Your task to perform on an android device: turn on notifications settings in the gmail app Image 0: 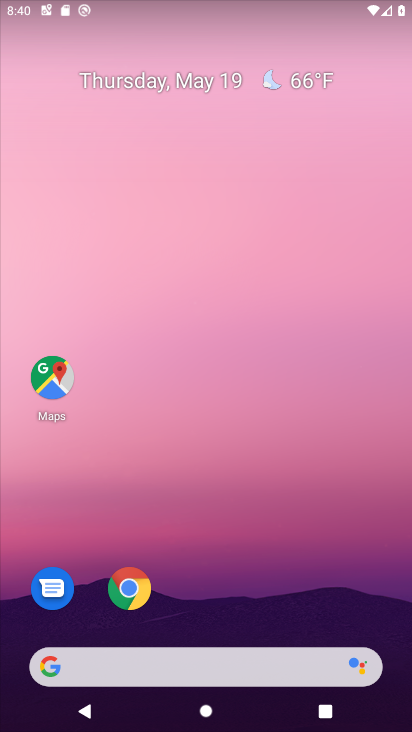
Step 0: drag from (378, 271) to (376, 221)
Your task to perform on an android device: turn on notifications settings in the gmail app Image 1: 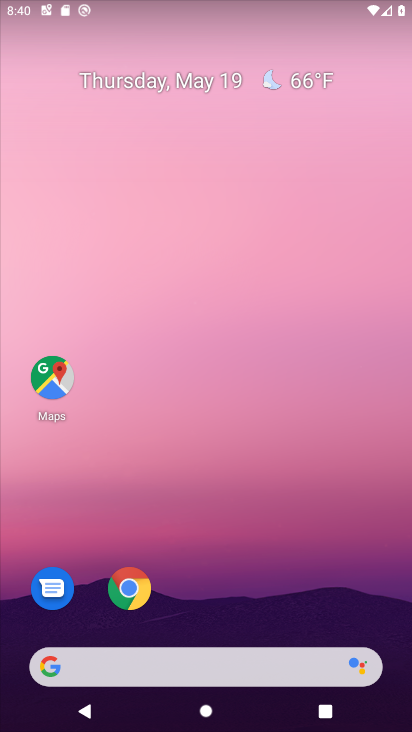
Step 1: drag from (382, 618) to (363, 187)
Your task to perform on an android device: turn on notifications settings in the gmail app Image 2: 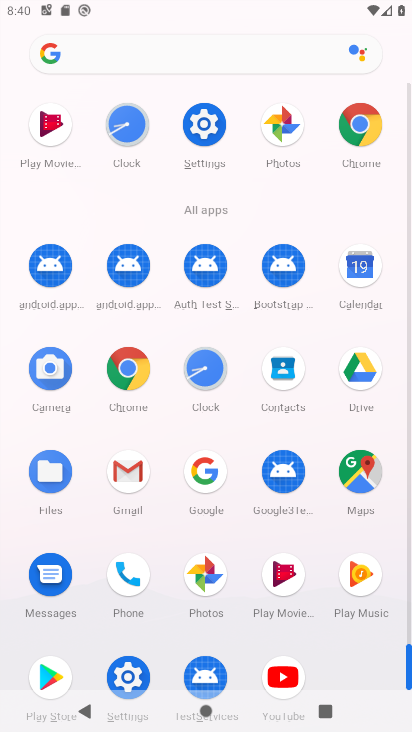
Step 2: click (140, 477)
Your task to perform on an android device: turn on notifications settings in the gmail app Image 3: 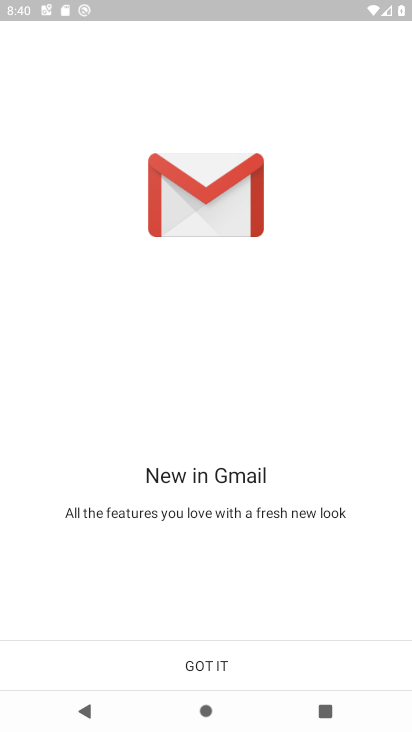
Step 3: click (227, 665)
Your task to perform on an android device: turn on notifications settings in the gmail app Image 4: 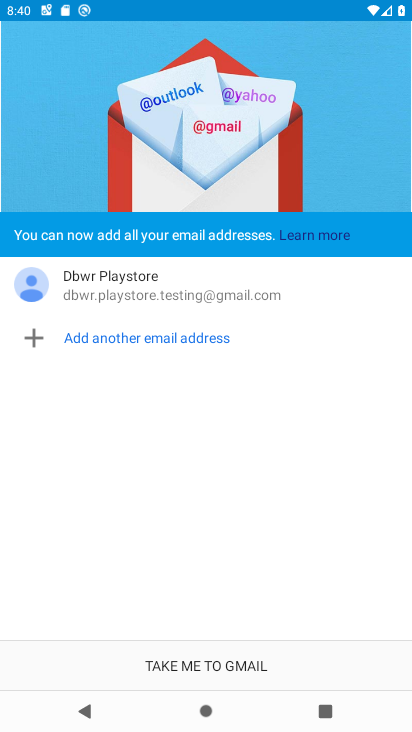
Step 4: click (268, 658)
Your task to perform on an android device: turn on notifications settings in the gmail app Image 5: 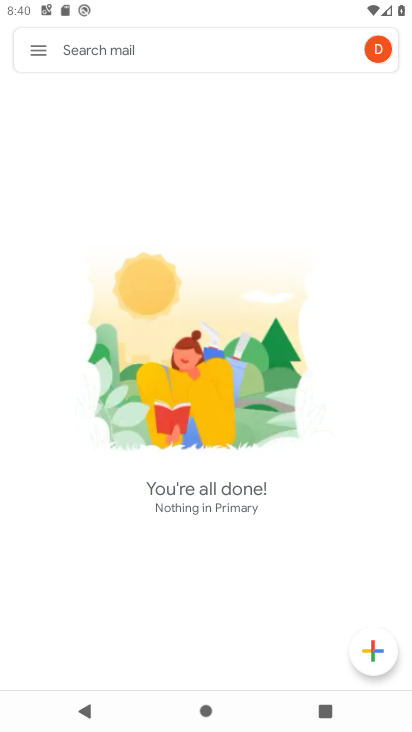
Step 5: click (39, 48)
Your task to perform on an android device: turn on notifications settings in the gmail app Image 6: 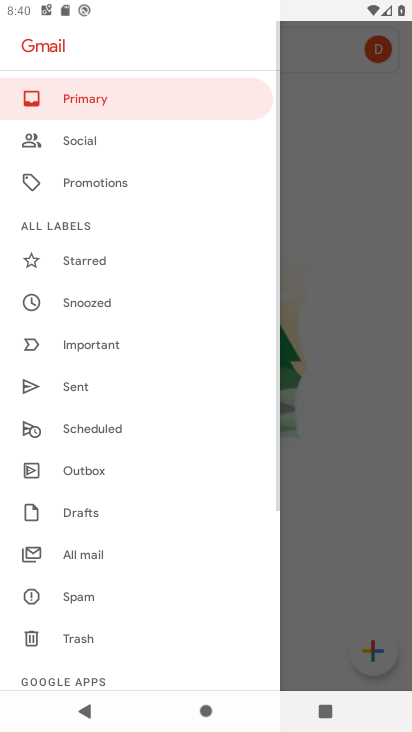
Step 6: drag from (174, 471) to (175, 387)
Your task to perform on an android device: turn on notifications settings in the gmail app Image 7: 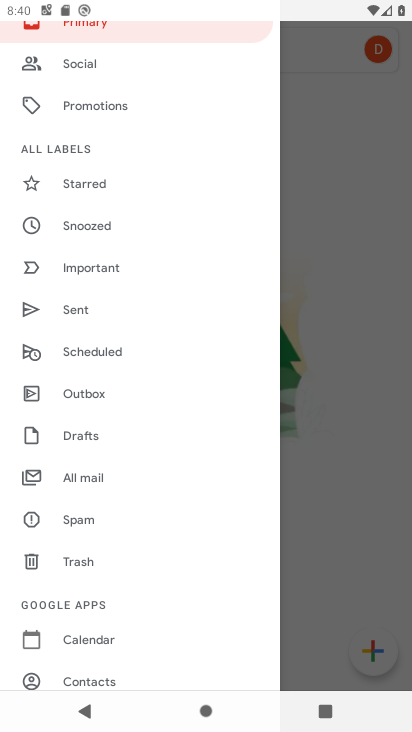
Step 7: drag from (173, 513) to (186, 421)
Your task to perform on an android device: turn on notifications settings in the gmail app Image 8: 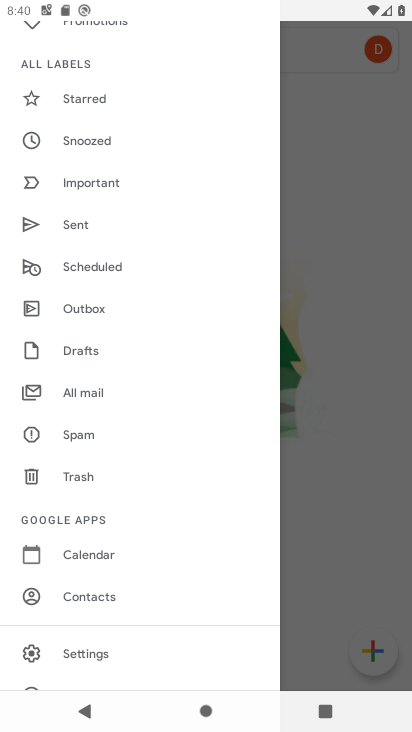
Step 8: drag from (190, 540) to (189, 430)
Your task to perform on an android device: turn on notifications settings in the gmail app Image 9: 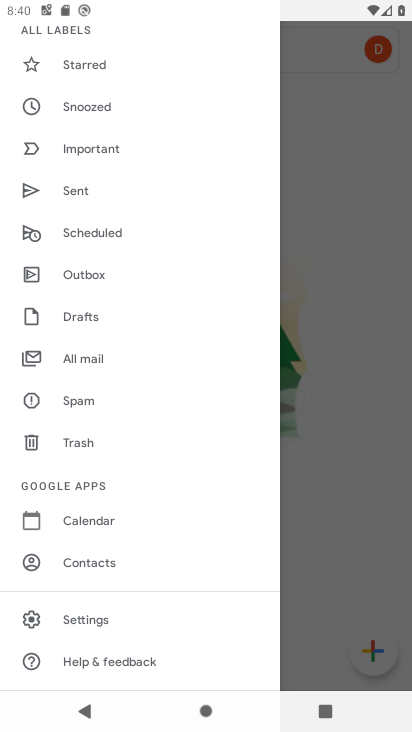
Step 9: click (130, 613)
Your task to perform on an android device: turn on notifications settings in the gmail app Image 10: 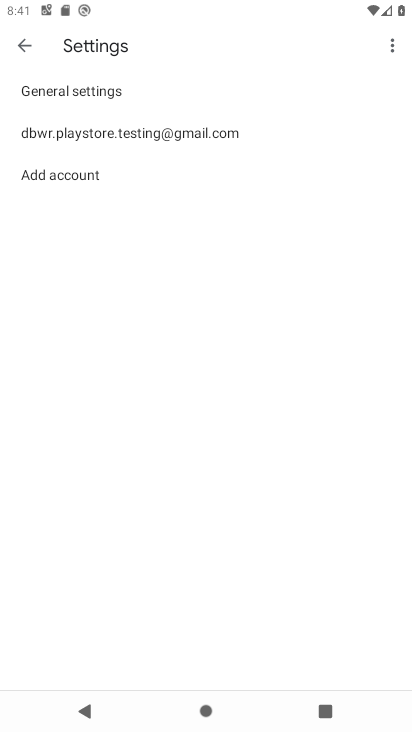
Step 10: click (263, 139)
Your task to perform on an android device: turn on notifications settings in the gmail app Image 11: 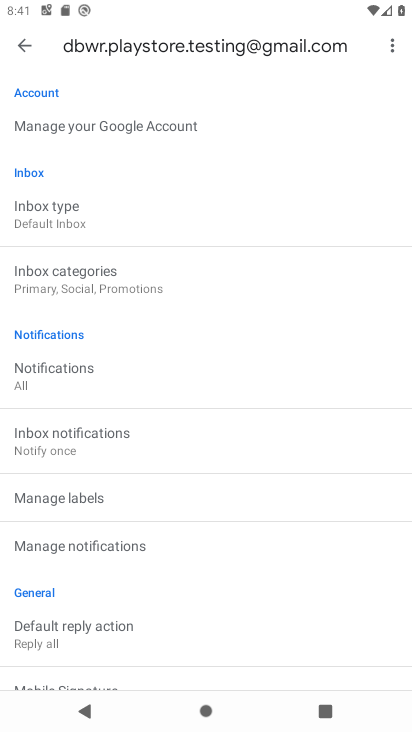
Step 11: drag from (278, 562) to (283, 446)
Your task to perform on an android device: turn on notifications settings in the gmail app Image 12: 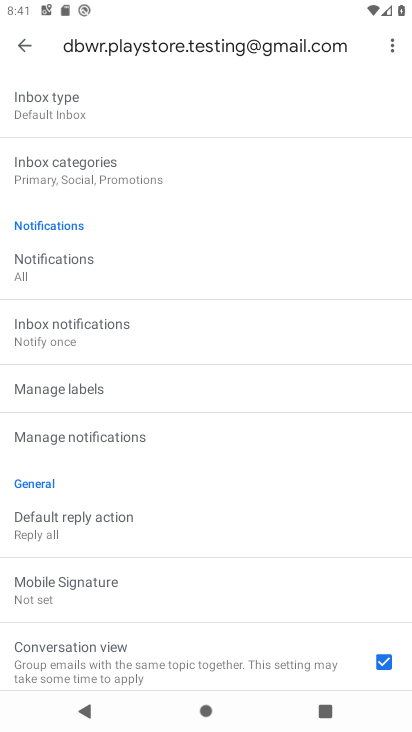
Step 12: drag from (285, 591) to (292, 493)
Your task to perform on an android device: turn on notifications settings in the gmail app Image 13: 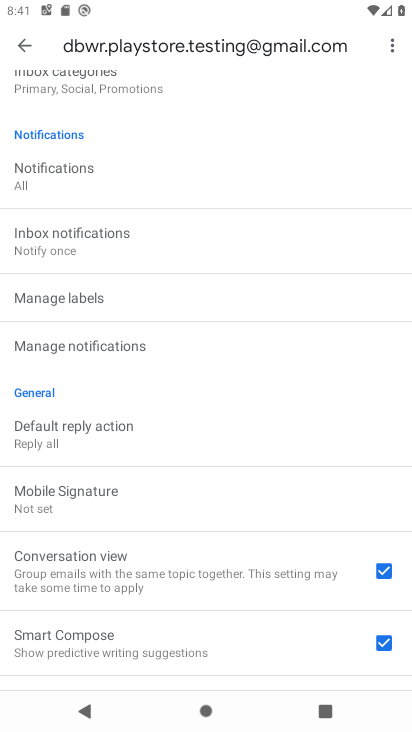
Step 13: drag from (271, 596) to (282, 458)
Your task to perform on an android device: turn on notifications settings in the gmail app Image 14: 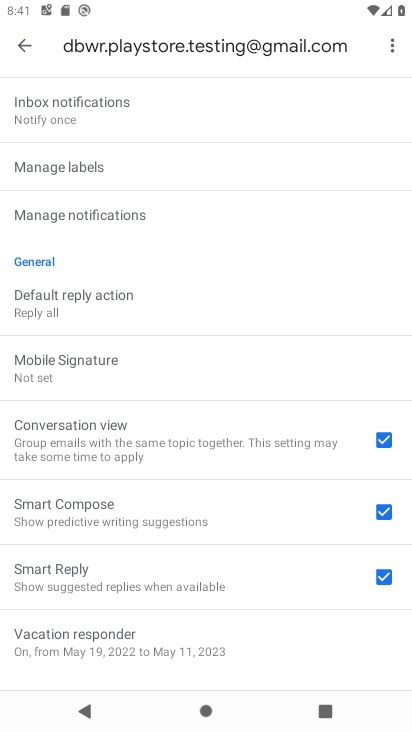
Step 14: drag from (299, 618) to (303, 489)
Your task to perform on an android device: turn on notifications settings in the gmail app Image 15: 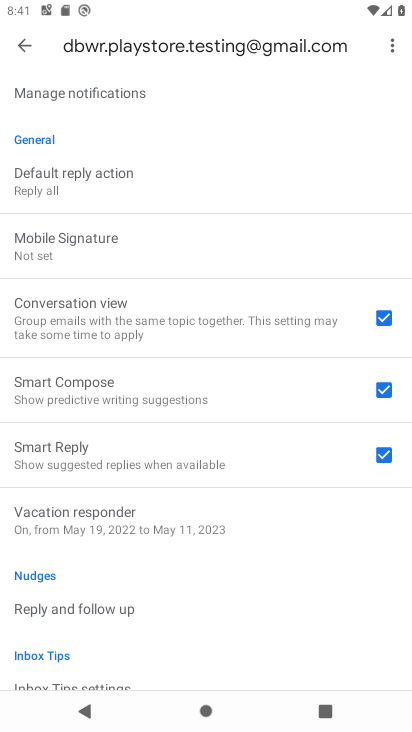
Step 15: drag from (301, 609) to (295, 514)
Your task to perform on an android device: turn on notifications settings in the gmail app Image 16: 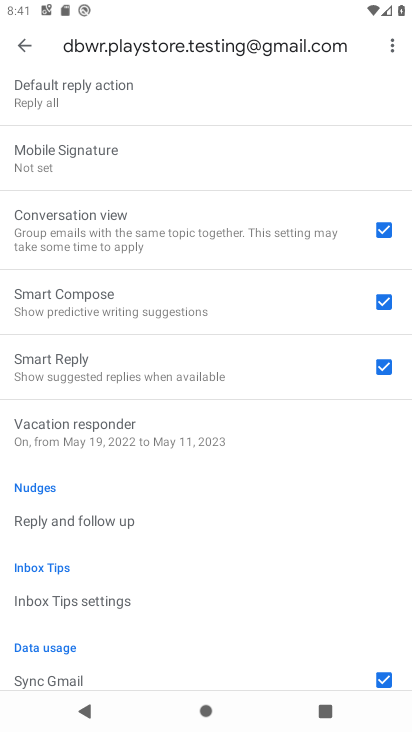
Step 16: drag from (287, 594) to (281, 497)
Your task to perform on an android device: turn on notifications settings in the gmail app Image 17: 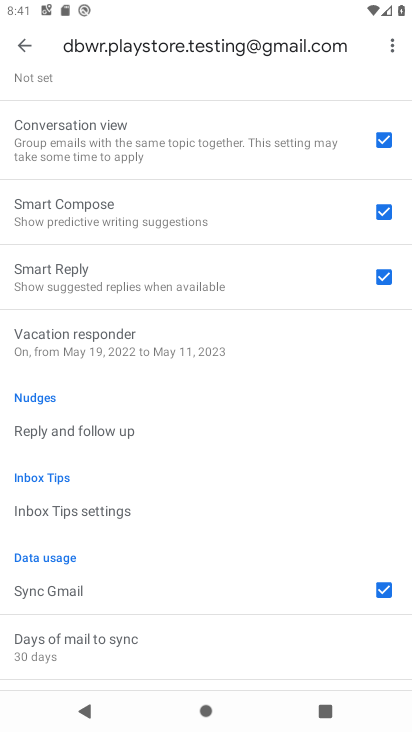
Step 17: drag from (284, 576) to (279, 473)
Your task to perform on an android device: turn on notifications settings in the gmail app Image 18: 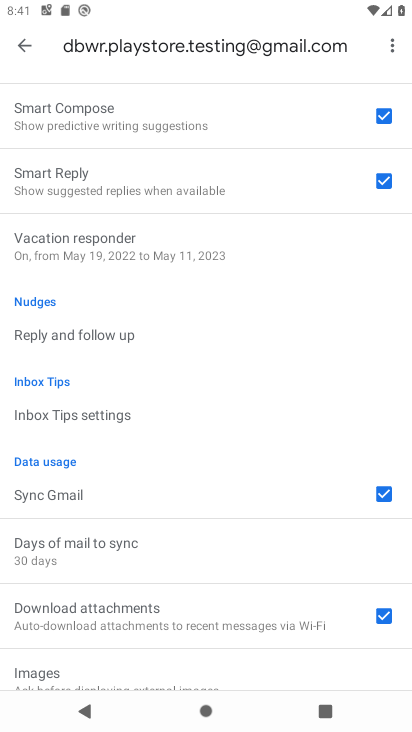
Step 18: drag from (292, 280) to (282, 364)
Your task to perform on an android device: turn on notifications settings in the gmail app Image 19: 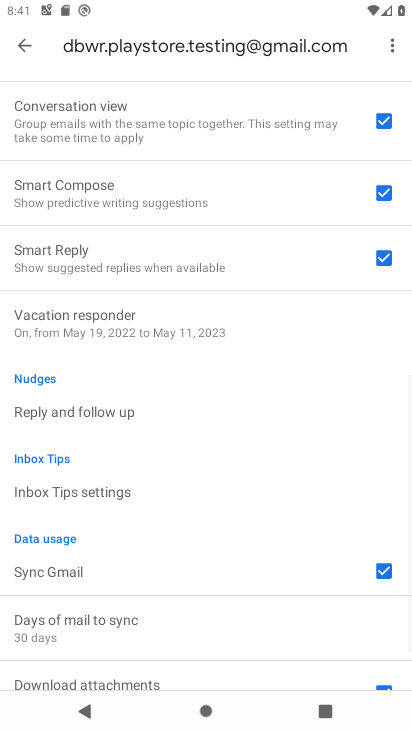
Step 19: drag from (283, 228) to (289, 344)
Your task to perform on an android device: turn on notifications settings in the gmail app Image 20: 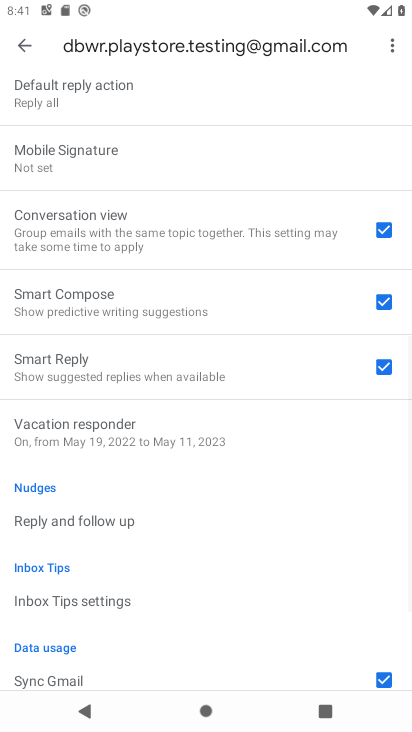
Step 20: drag from (274, 210) to (270, 315)
Your task to perform on an android device: turn on notifications settings in the gmail app Image 21: 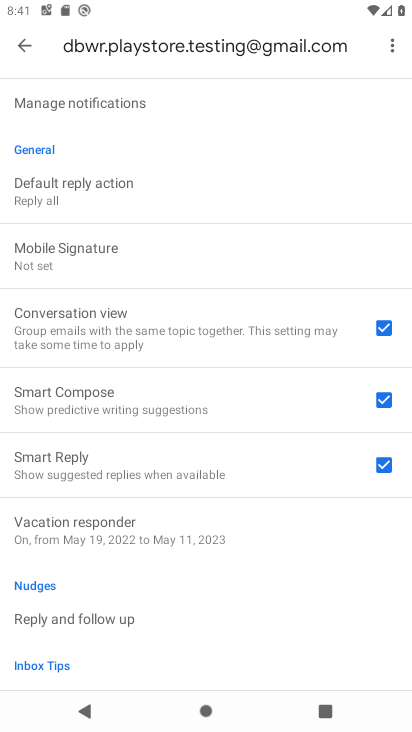
Step 21: drag from (254, 195) to (248, 293)
Your task to perform on an android device: turn on notifications settings in the gmail app Image 22: 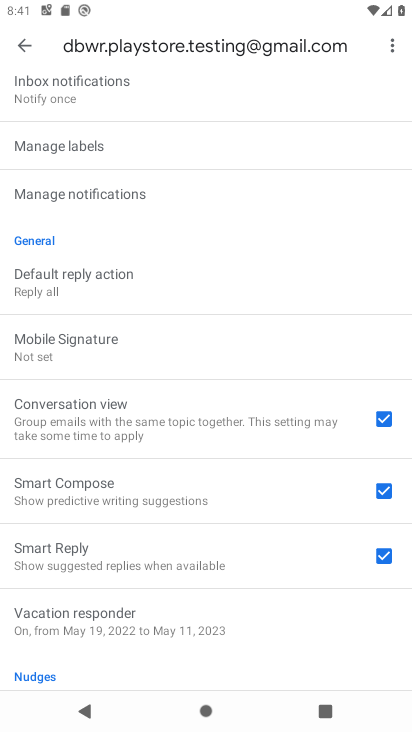
Step 22: drag from (267, 244) to (260, 329)
Your task to perform on an android device: turn on notifications settings in the gmail app Image 23: 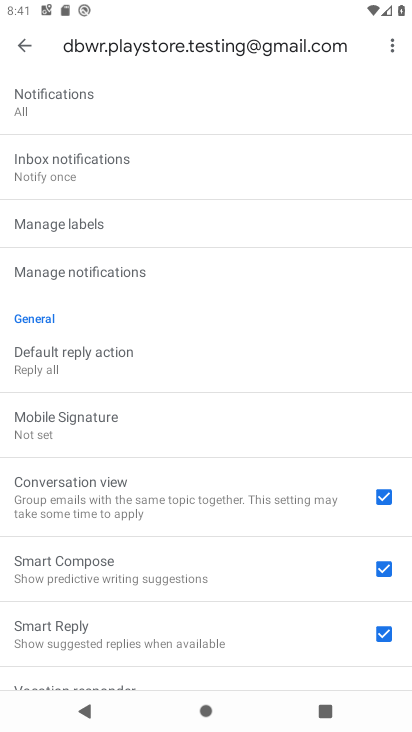
Step 23: click (203, 281)
Your task to perform on an android device: turn on notifications settings in the gmail app Image 24: 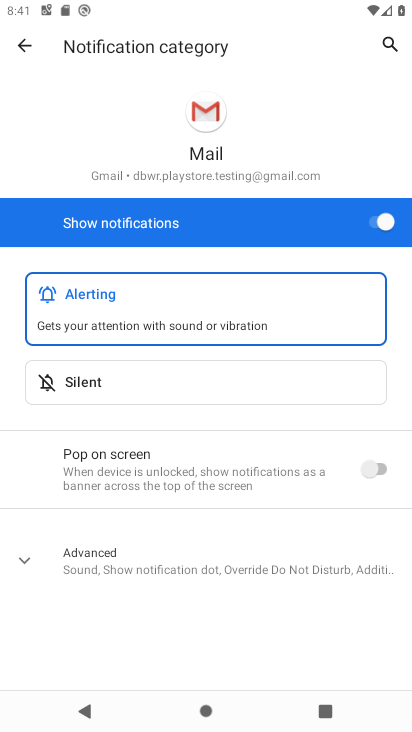
Step 24: task complete